Your task to perform on an android device: What's the weather going to be tomorrow? Image 0: 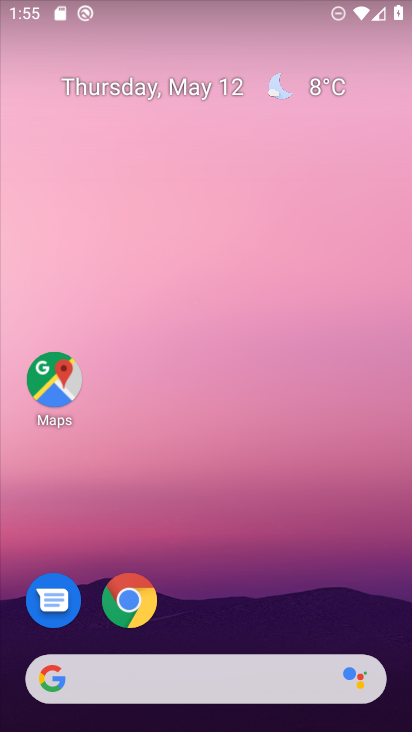
Step 0: click (274, 86)
Your task to perform on an android device: What's the weather going to be tomorrow? Image 1: 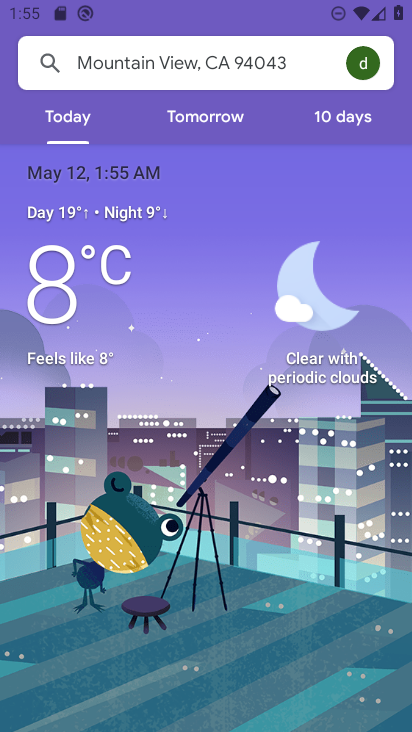
Step 1: click (203, 116)
Your task to perform on an android device: What's the weather going to be tomorrow? Image 2: 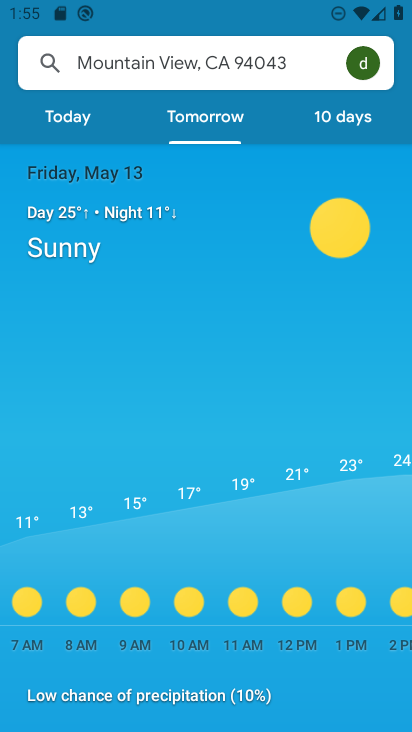
Step 2: task complete